Your task to perform on an android device: toggle location history Image 0: 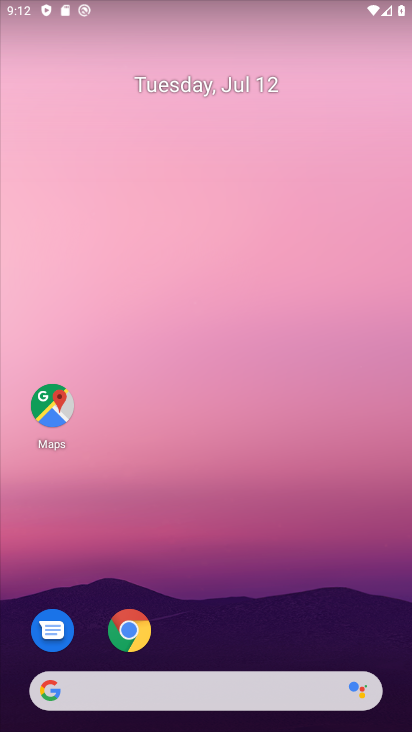
Step 0: drag from (271, 703) to (313, 91)
Your task to perform on an android device: toggle location history Image 1: 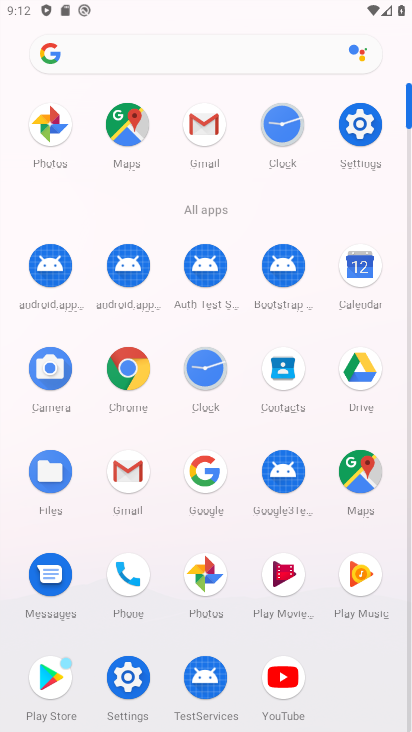
Step 1: click (368, 126)
Your task to perform on an android device: toggle location history Image 2: 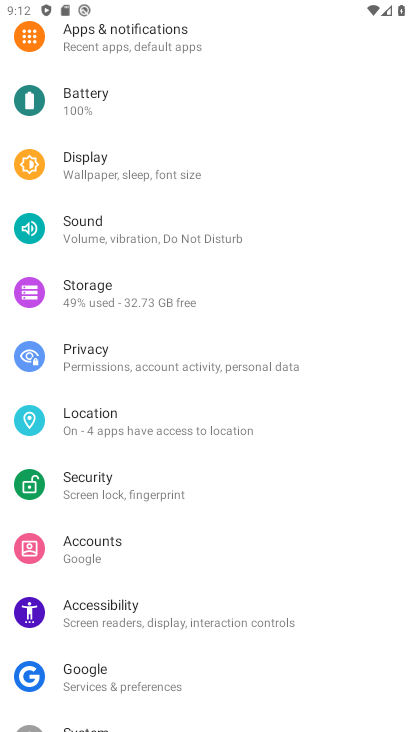
Step 2: click (139, 431)
Your task to perform on an android device: toggle location history Image 3: 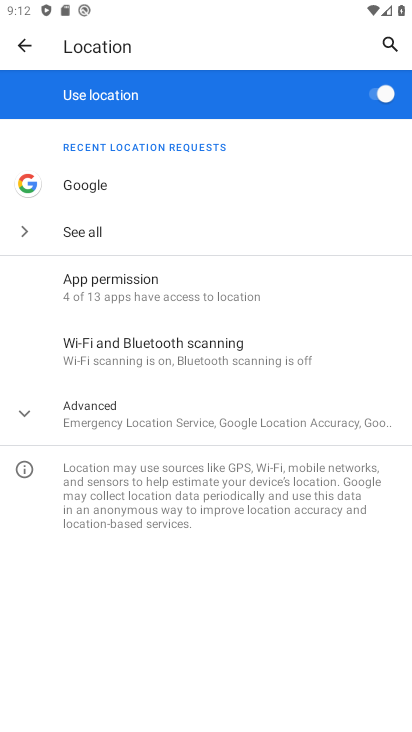
Step 3: click (180, 426)
Your task to perform on an android device: toggle location history Image 4: 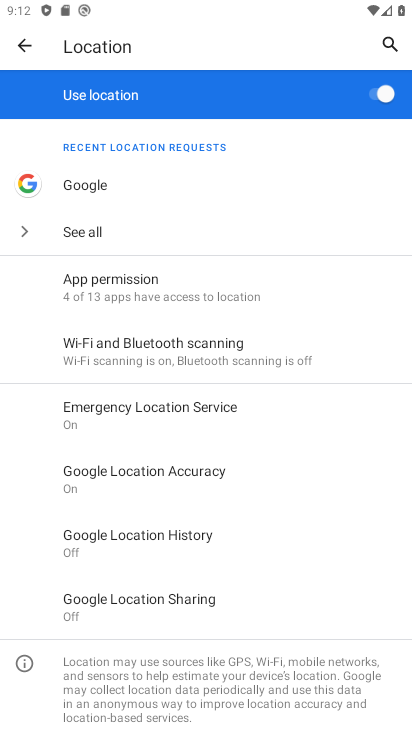
Step 4: click (154, 533)
Your task to perform on an android device: toggle location history Image 5: 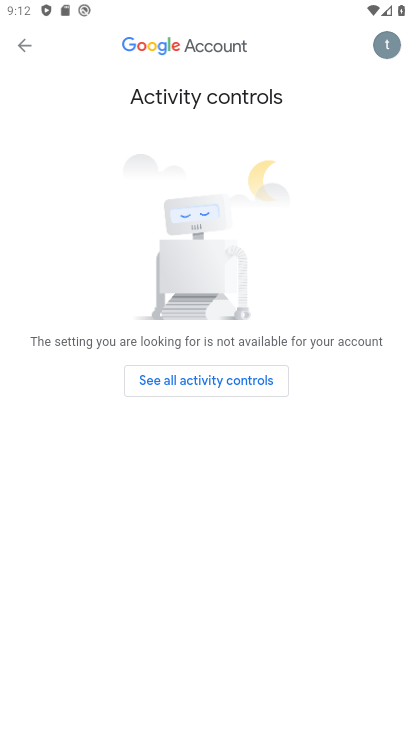
Step 5: task complete